Your task to perform on an android device: Open Maps and search for coffee Image 0: 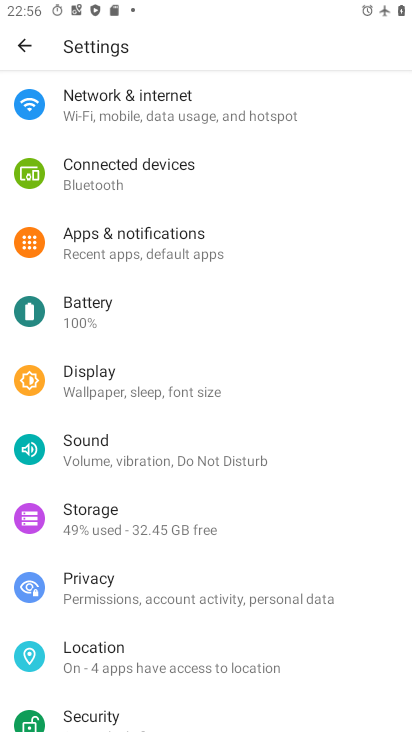
Step 0: press back button
Your task to perform on an android device: Open Maps and search for coffee Image 1: 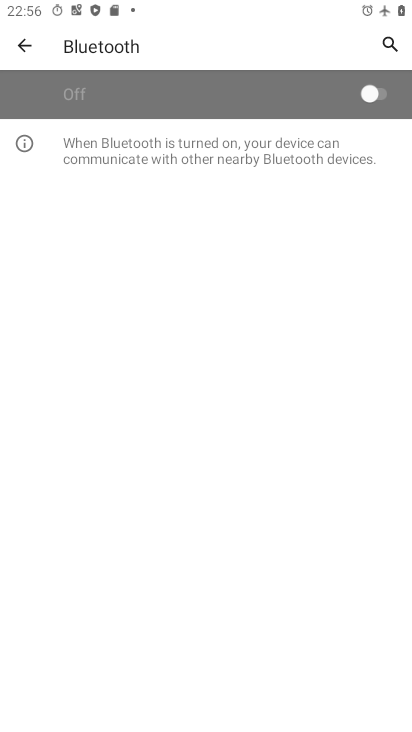
Step 1: press back button
Your task to perform on an android device: Open Maps and search for coffee Image 2: 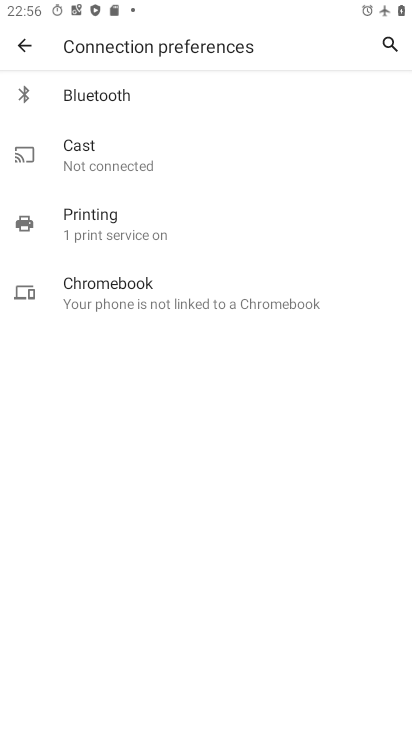
Step 2: press back button
Your task to perform on an android device: Open Maps and search for coffee Image 3: 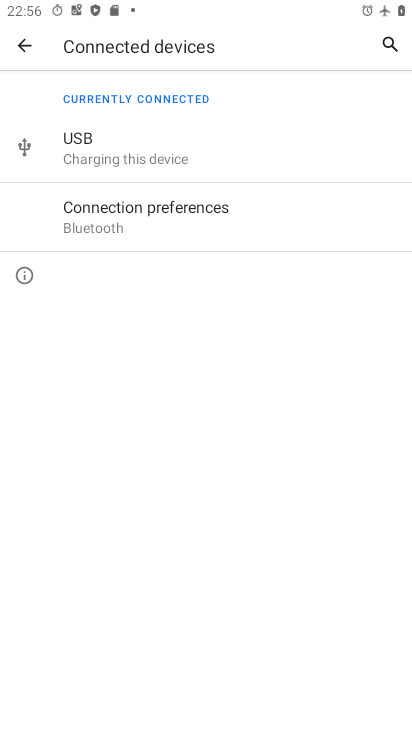
Step 3: press back button
Your task to perform on an android device: Open Maps and search for coffee Image 4: 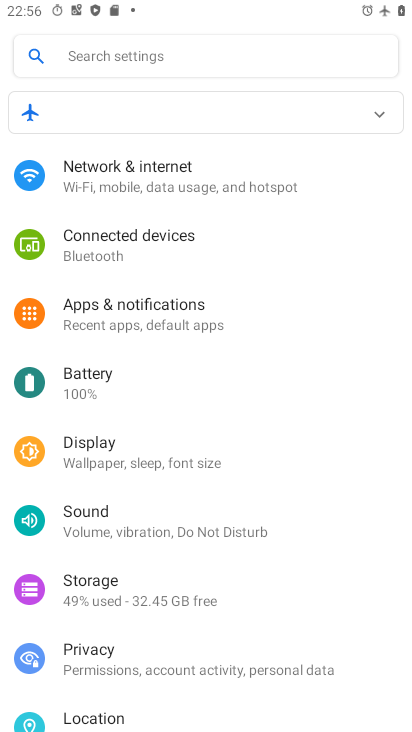
Step 4: press back button
Your task to perform on an android device: Open Maps and search for coffee Image 5: 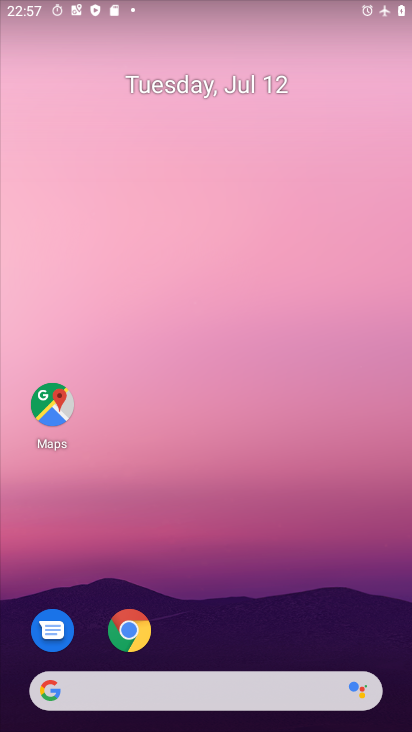
Step 5: click (59, 408)
Your task to perform on an android device: Open Maps and search for coffee Image 6: 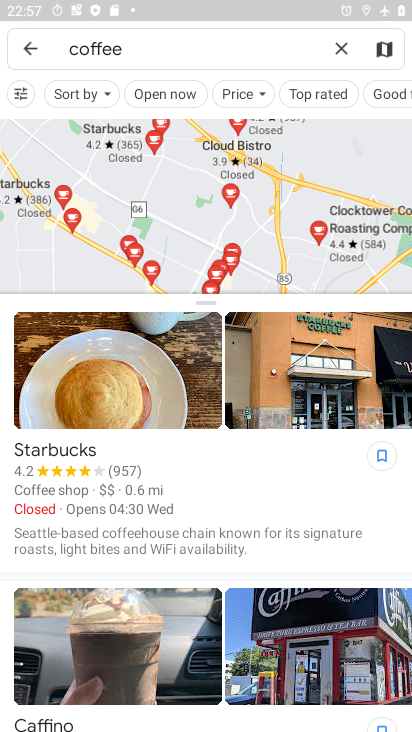
Step 6: task complete